Your task to perform on an android device: see sites visited before in the chrome app Image 0: 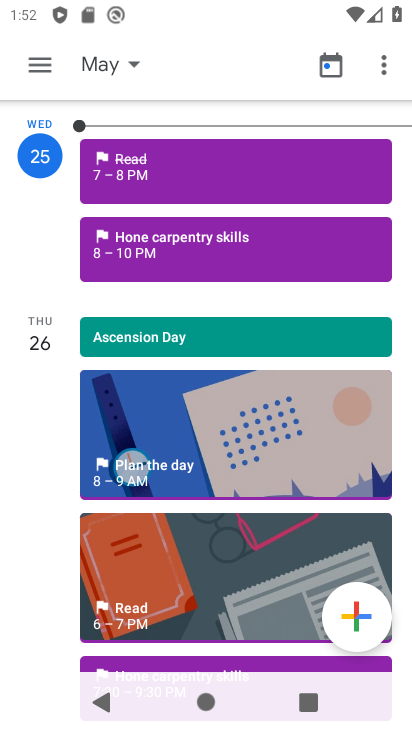
Step 0: drag from (189, 559) to (247, 264)
Your task to perform on an android device: see sites visited before in the chrome app Image 1: 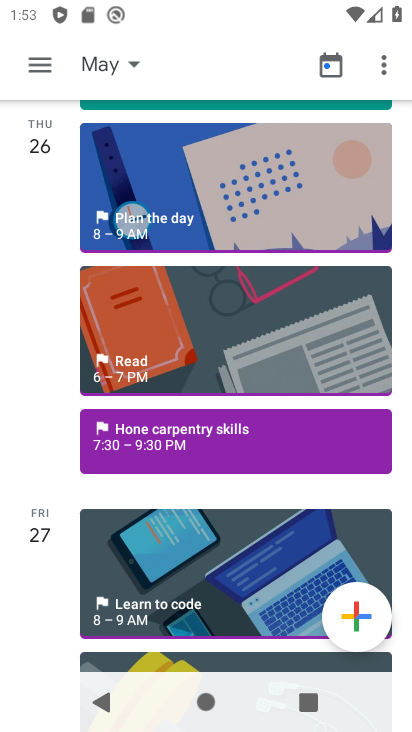
Step 1: press home button
Your task to perform on an android device: see sites visited before in the chrome app Image 2: 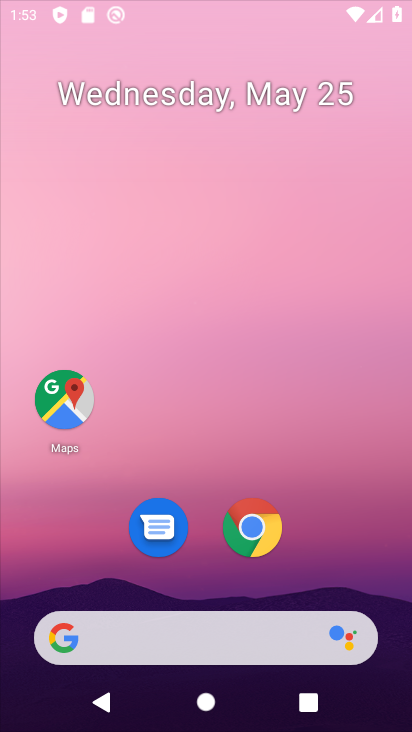
Step 2: drag from (166, 560) to (268, 70)
Your task to perform on an android device: see sites visited before in the chrome app Image 3: 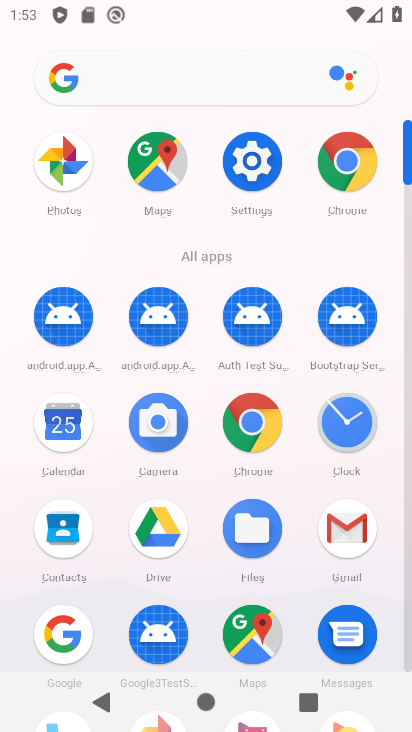
Step 3: click (244, 444)
Your task to perform on an android device: see sites visited before in the chrome app Image 4: 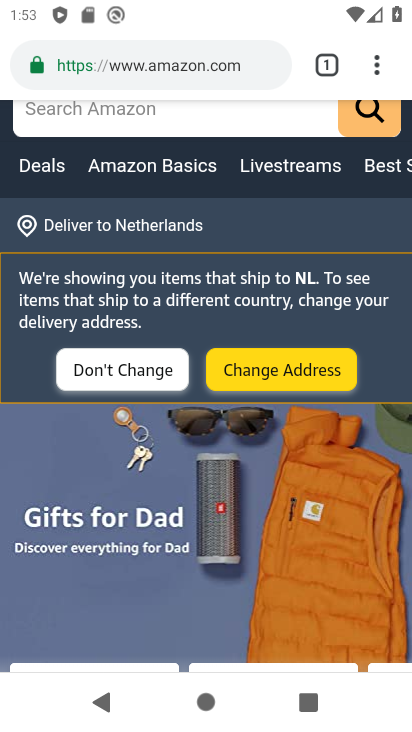
Step 4: drag from (261, 119) to (284, 528)
Your task to perform on an android device: see sites visited before in the chrome app Image 5: 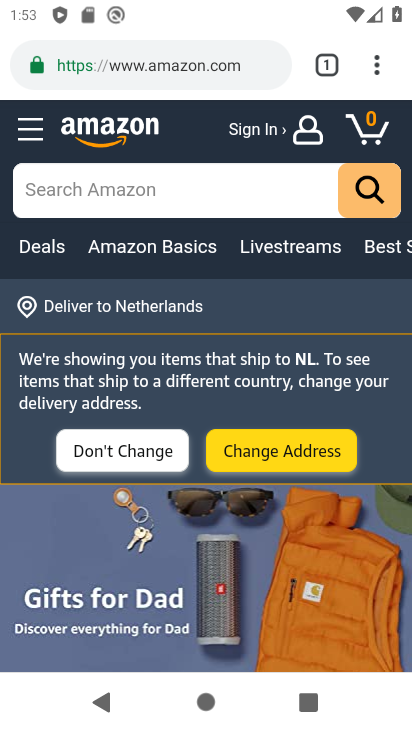
Step 5: click (380, 53)
Your task to perform on an android device: see sites visited before in the chrome app Image 6: 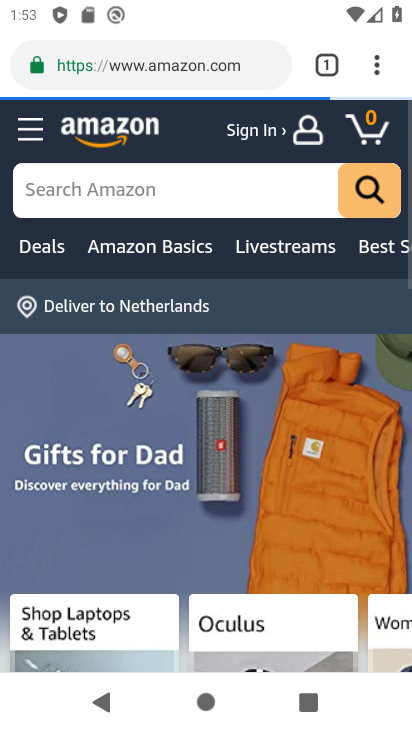
Step 6: click (380, 53)
Your task to perform on an android device: see sites visited before in the chrome app Image 7: 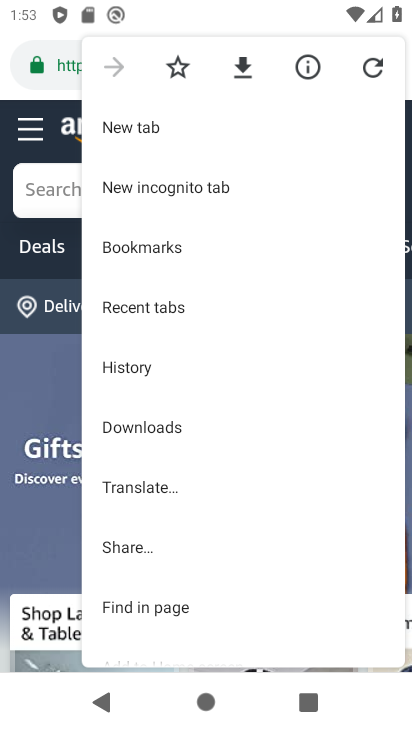
Step 7: drag from (177, 569) to (285, 148)
Your task to perform on an android device: see sites visited before in the chrome app Image 8: 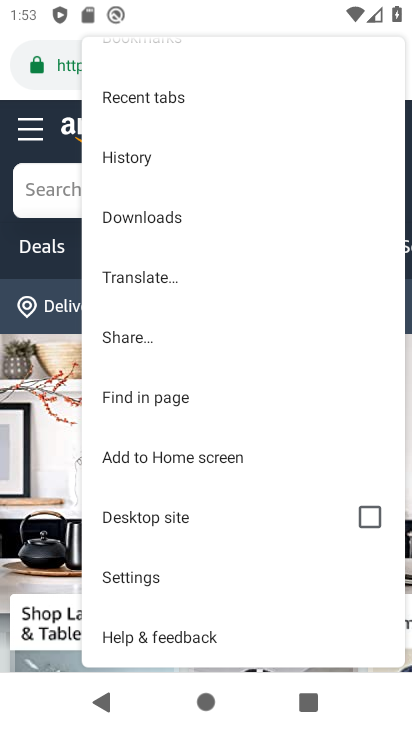
Step 8: click (136, 568)
Your task to perform on an android device: see sites visited before in the chrome app Image 9: 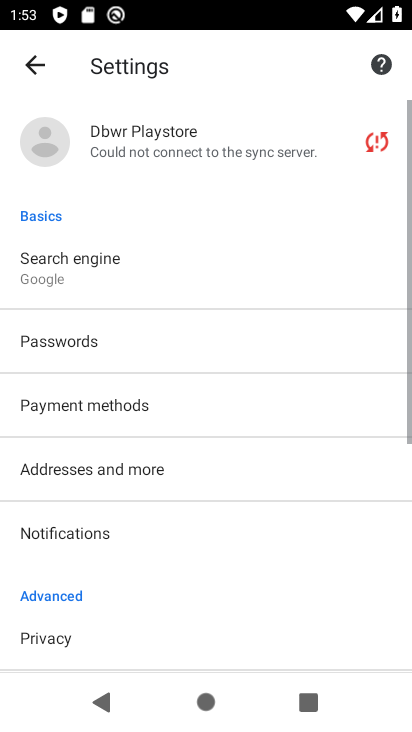
Step 9: drag from (142, 562) to (279, 109)
Your task to perform on an android device: see sites visited before in the chrome app Image 10: 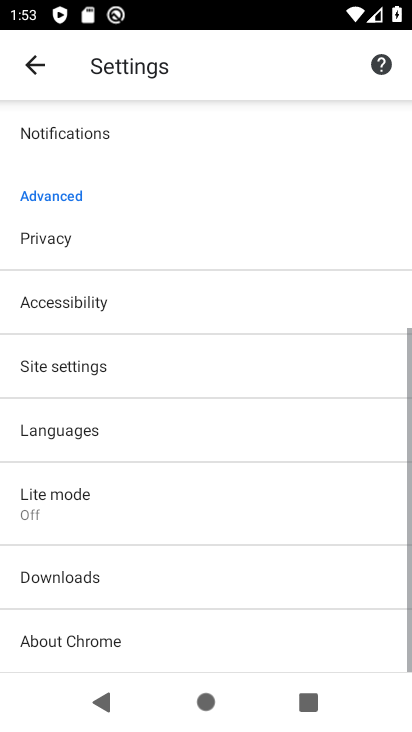
Step 10: drag from (147, 557) to (208, 259)
Your task to perform on an android device: see sites visited before in the chrome app Image 11: 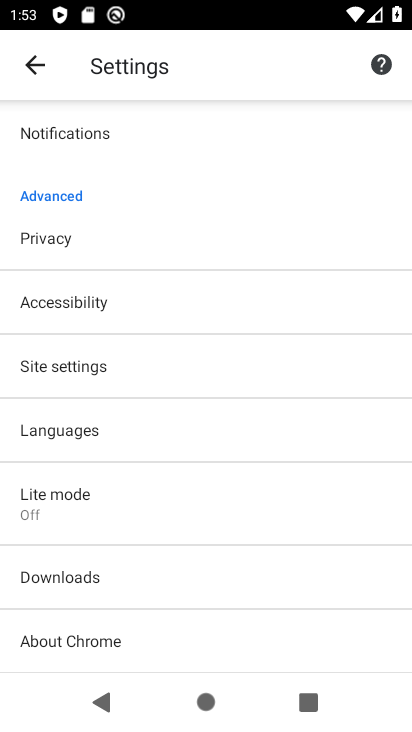
Step 11: drag from (155, 470) to (171, 334)
Your task to perform on an android device: see sites visited before in the chrome app Image 12: 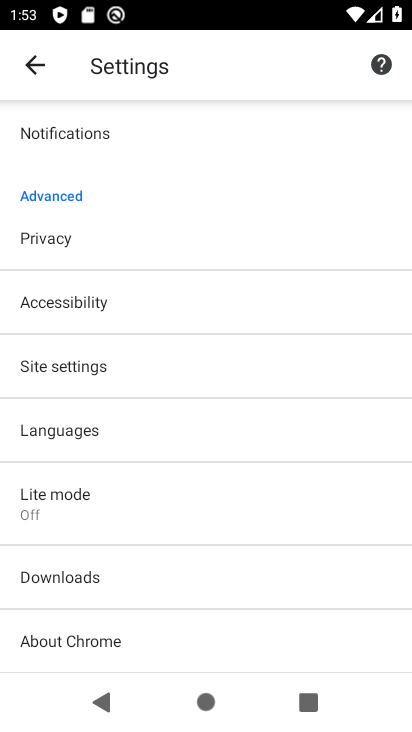
Step 12: drag from (221, 593) to (281, 266)
Your task to perform on an android device: see sites visited before in the chrome app Image 13: 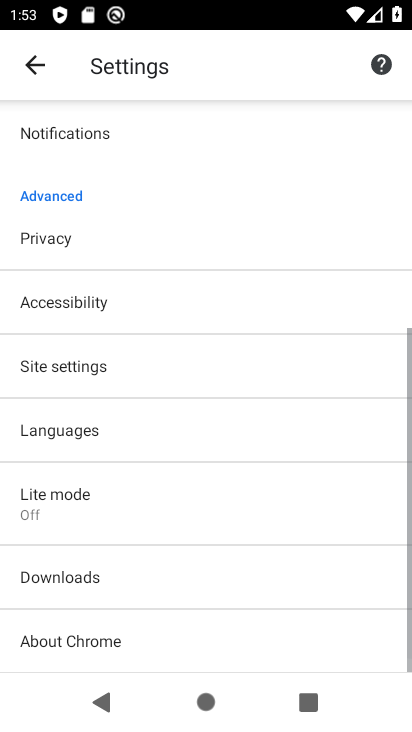
Step 13: click (286, 222)
Your task to perform on an android device: see sites visited before in the chrome app Image 14: 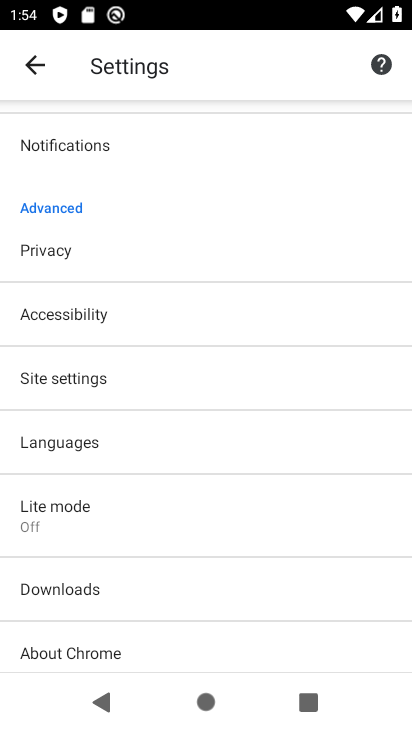
Step 14: drag from (159, 583) to (232, 210)
Your task to perform on an android device: see sites visited before in the chrome app Image 15: 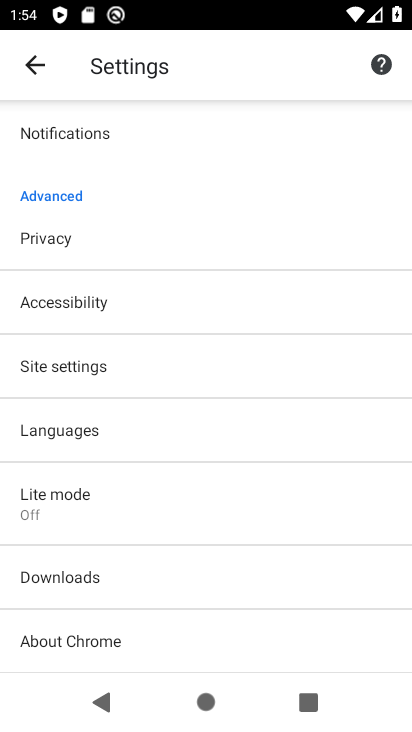
Step 15: click (42, 72)
Your task to perform on an android device: see sites visited before in the chrome app Image 16: 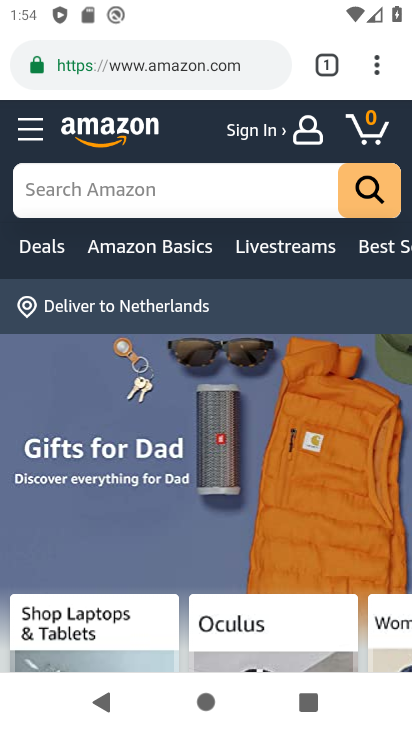
Step 16: click (383, 68)
Your task to perform on an android device: see sites visited before in the chrome app Image 17: 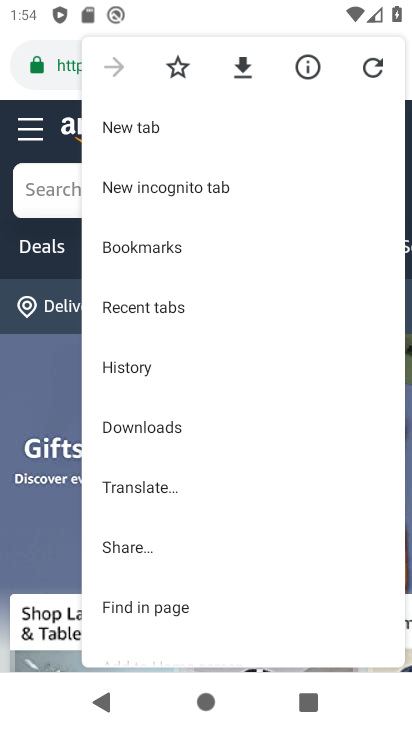
Step 17: click (200, 256)
Your task to perform on an android device: see sites visited before in the chrome app Image 18: 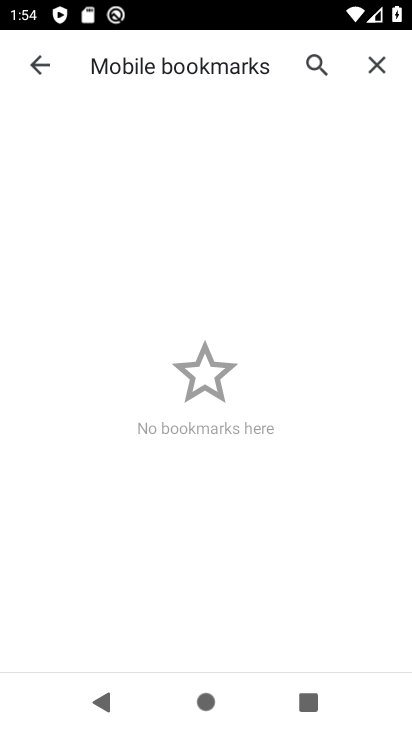
Step 18: task complete